Your task to perform on an android device: Toggle the flashlight Image 0: 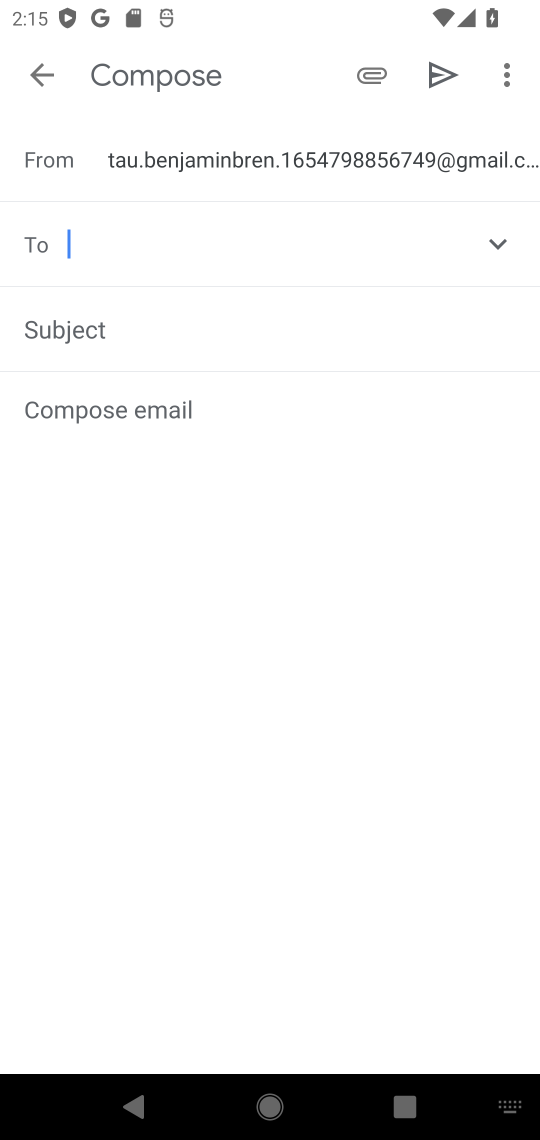
Step 0: press home button
Your task to perform on an android device: Toggle the flashlight Image 1: 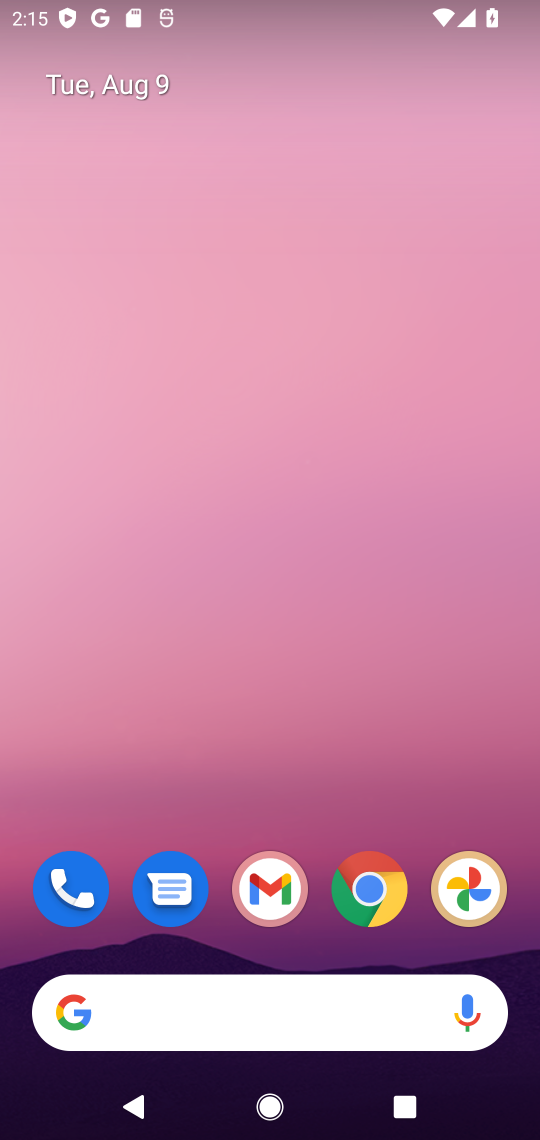
Step 1: drag from (318, 768) to (392, 0)
Your task to perform on an android device: Toggle the flashlight Image 2: 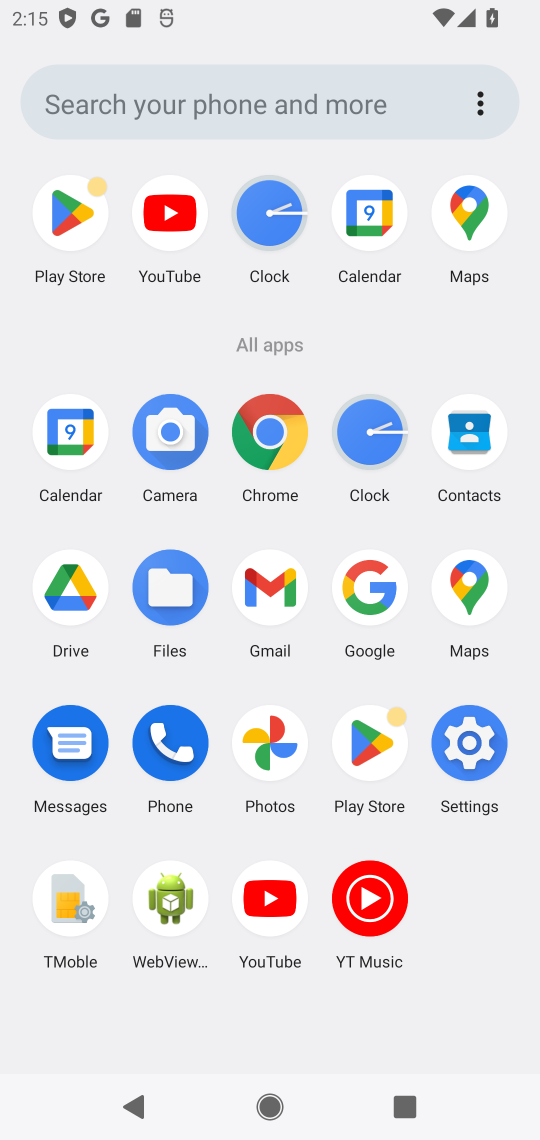
Step 2: click (463, 738)
Your task to perform on an android device: Toggle the flashlight Image 3: 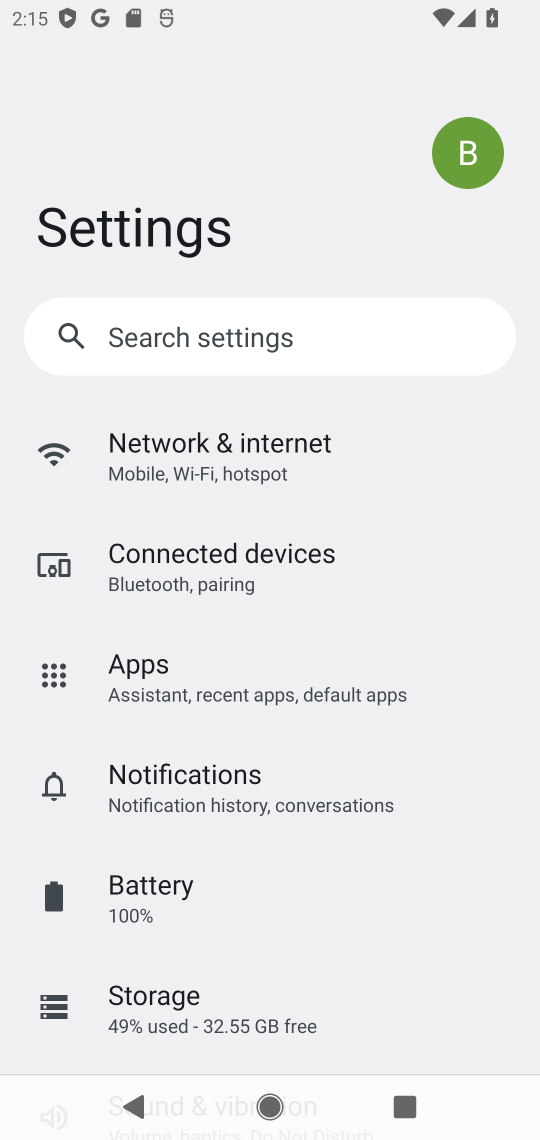
Step 3: click (356, 344)
Your task to perform on an android device: Toggle the flashlight Image 4: 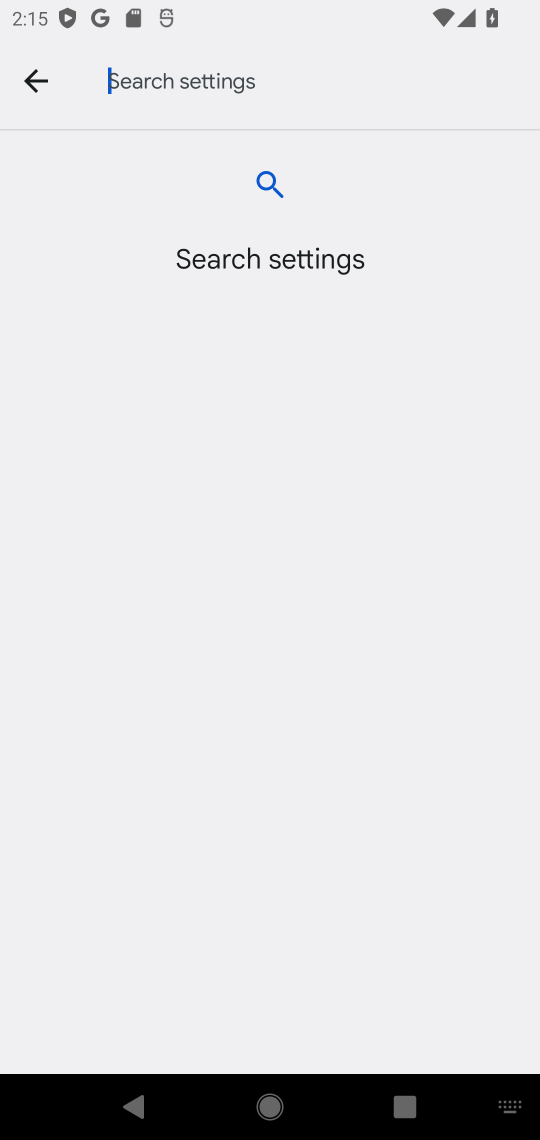
Step 4: type "Flashlight"
Your task to perform on an android device: Toggle the flashlight Image 5: 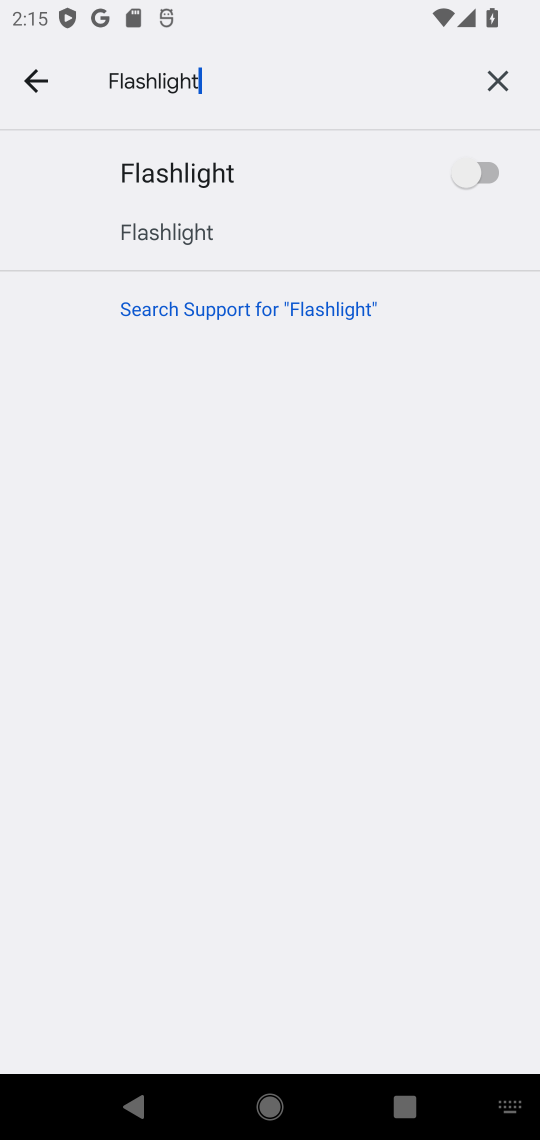
Step 5: click (482, 172)
Your task to perform on an android device: Toggle the flashlight Image 6: 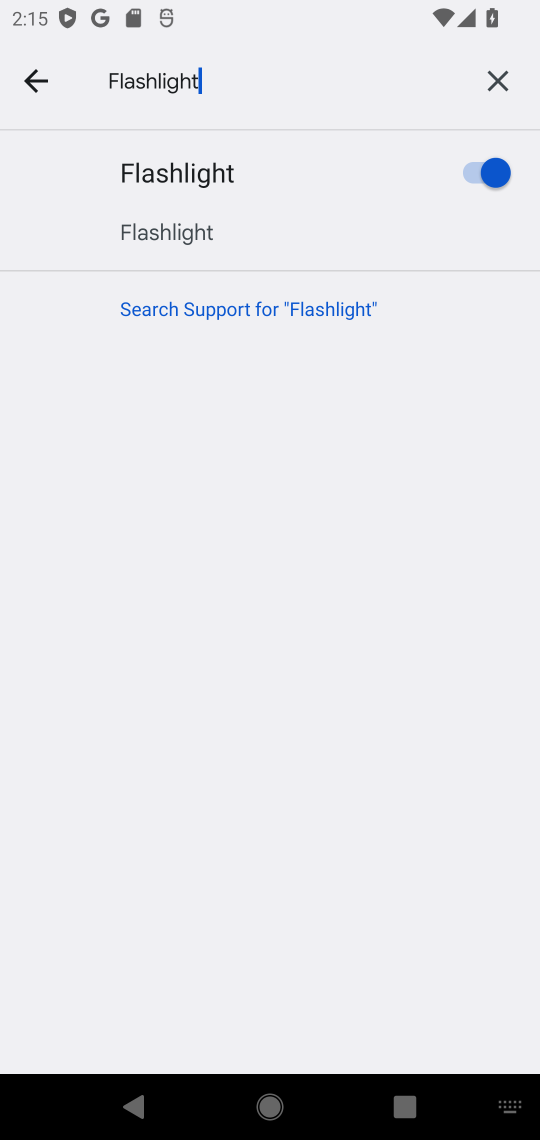
Step 6: task complete